Your task to perform on an android device: What's on my calendar today? Image 0: 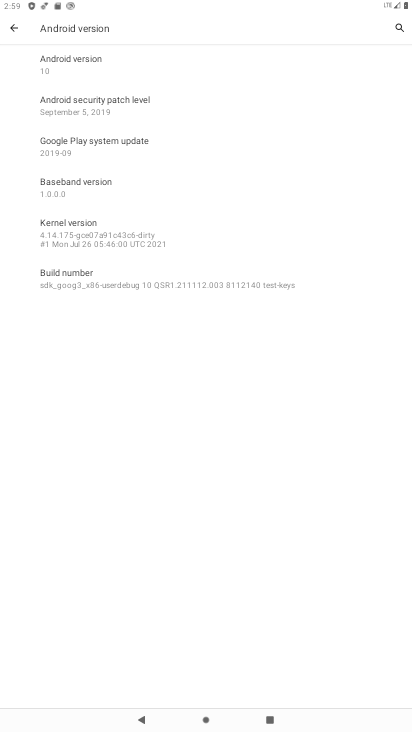
Step 0: press home button
Your task to perform on an android device: What's on my calendar today? Image 1: 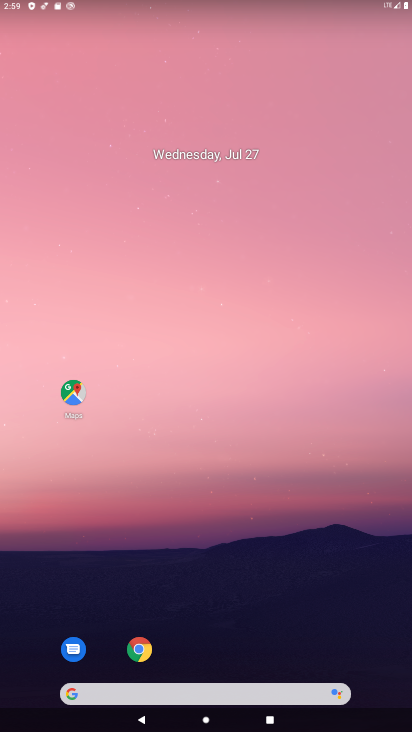
Step 1: drag from (255, 609) to (285, 196)
Your task to perform on an android device: What's on my calendar today? Image 2: 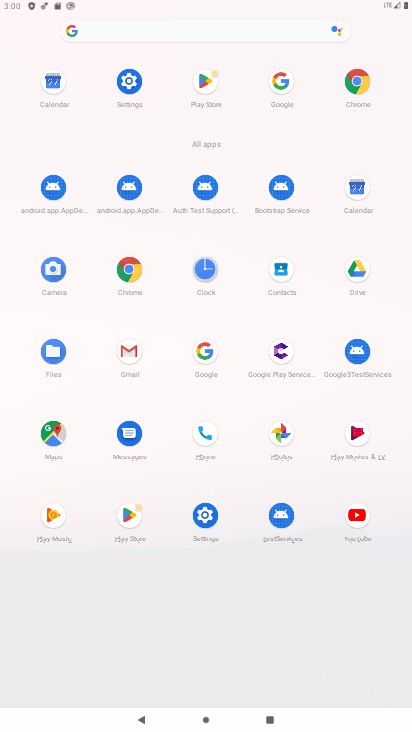
Step 2: click (360, 186)
Your task to perform on an android device: What's on my calendar today? Image 3: 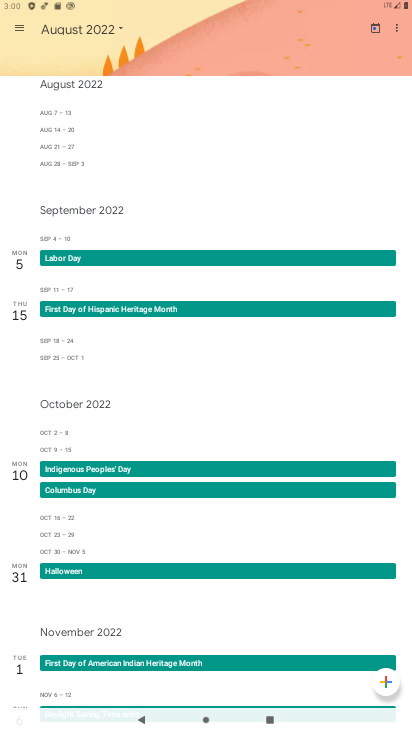
Step 3: click (101, 25)
Your task to perform on an android device: What's on my calendar today? Image 4: 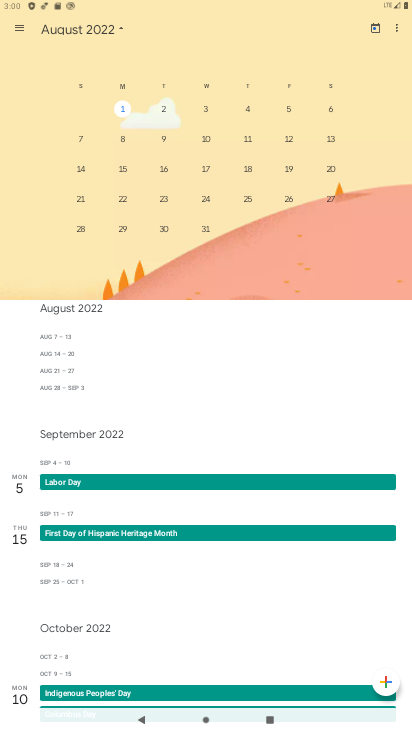
Step 4: drag from (40, 132) to (343, 146)
Your task to perform on an android device: What's on my calendar today? Image 5: 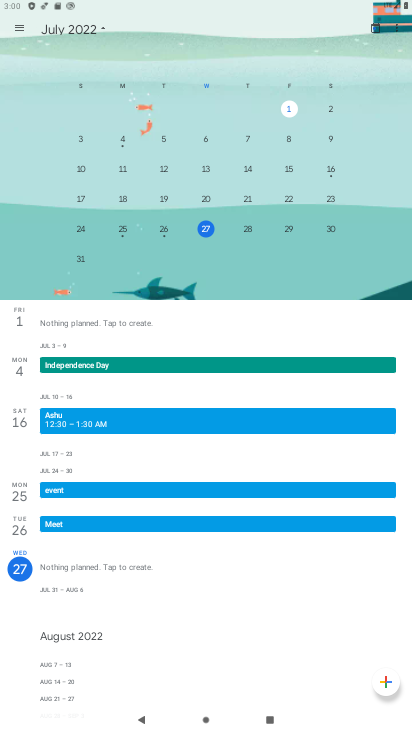
Step 5: click (201, 223)
Your task to perform on an android device: What's on my calendar today? Image 6: 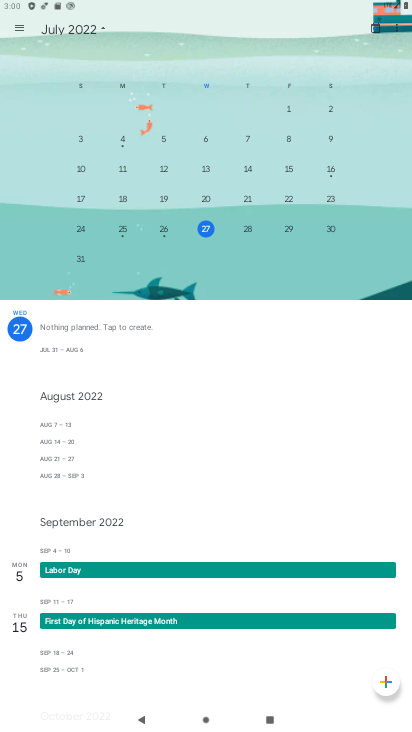
Step 6: task complete